Your task to perform on an android device: Open Google Maps Image 0: 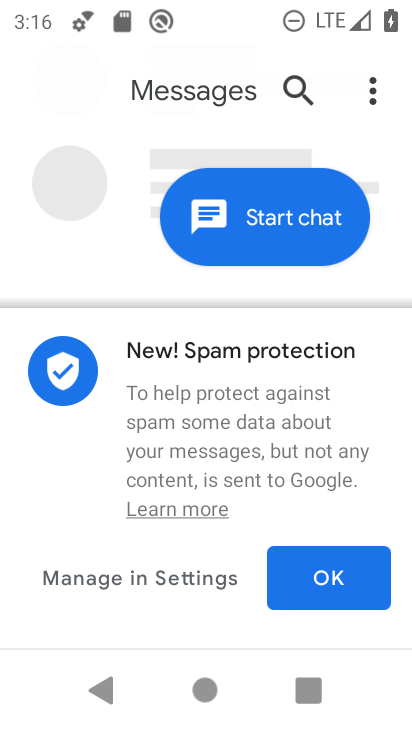
Step 0: press home button
Your task to perform on an android device: Open Google Maps Image 1: 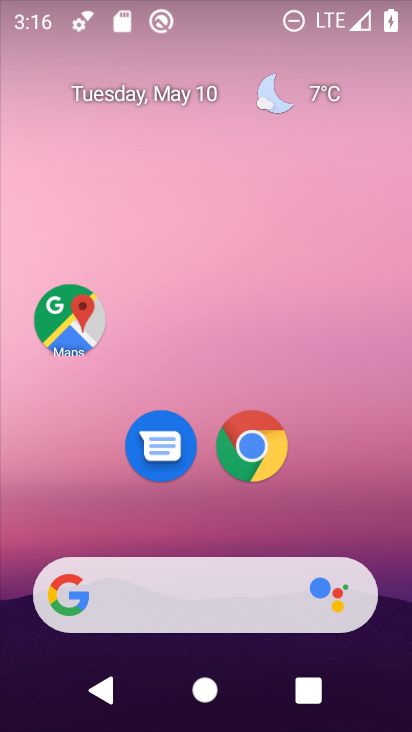
Step 1: click (71, 323)
Your task to perform on an android device: Open Google Maps Image 2: 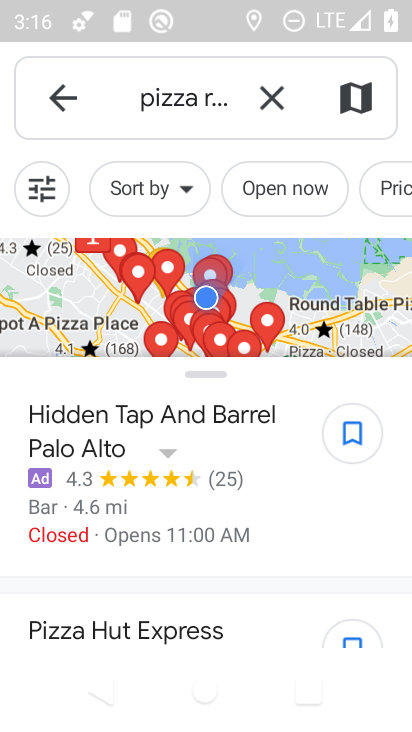
Step 2: task complete